Your task to perform on an android device: Open Amazon Image 0: 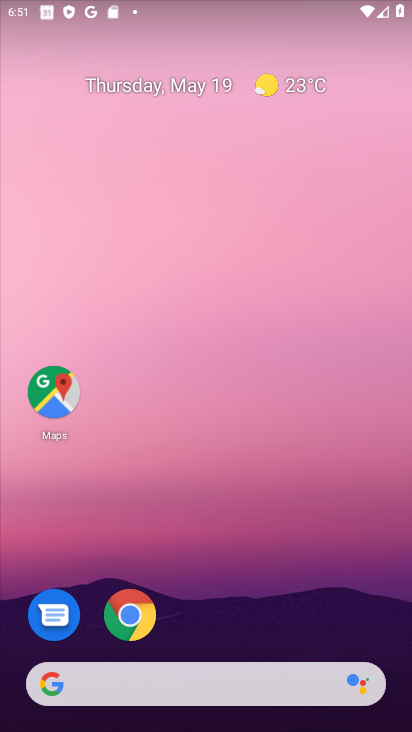
Step 0: drag from (337, 606) to (215, 80)
Your task to perform on an android device: Open Amazon Image 1: 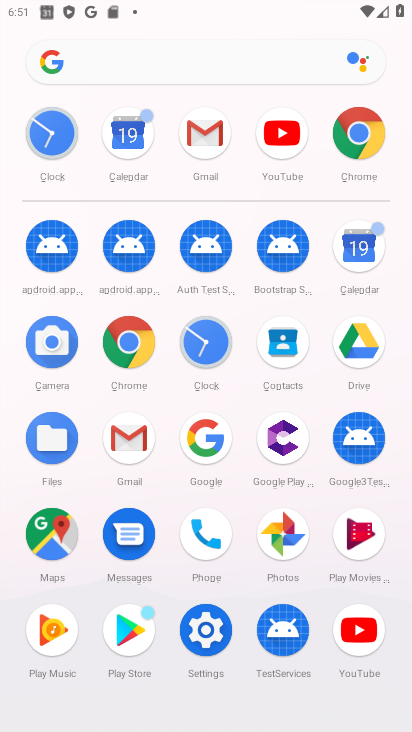
Step 1: click (190, 433)
Your task to perform on an android device: Open Amazon Image 2: 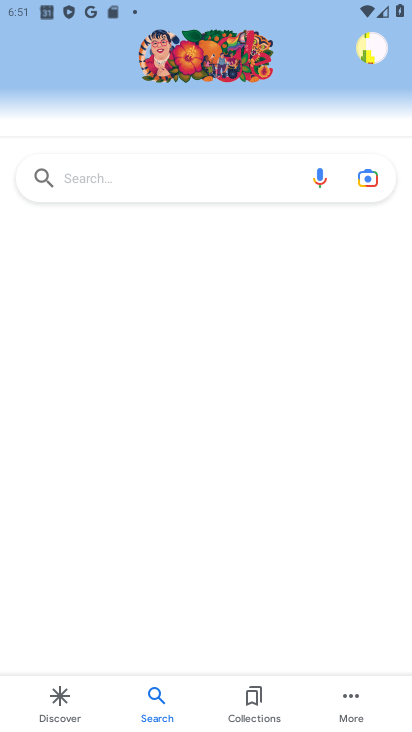
Step 2: click (133, 162)
Your task to perform on an android device: Open Amazon Image 3: 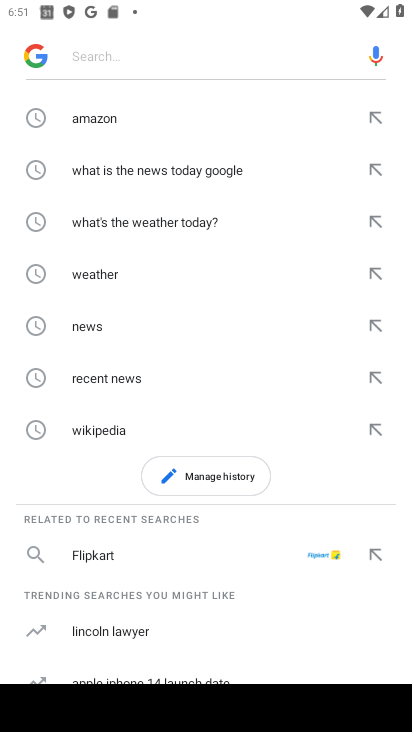
Step 3: click (101, 136)
Your task to perform on an android device: Open Amazon Image 4: 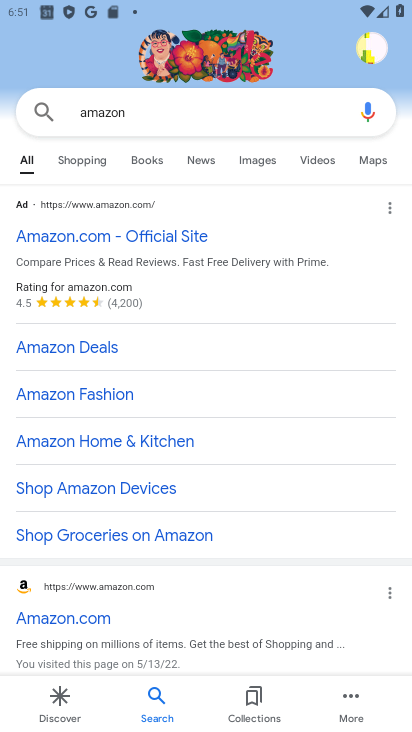
Step 4: task complete